Your task to perform on an android device: Go to Maps Image 0: 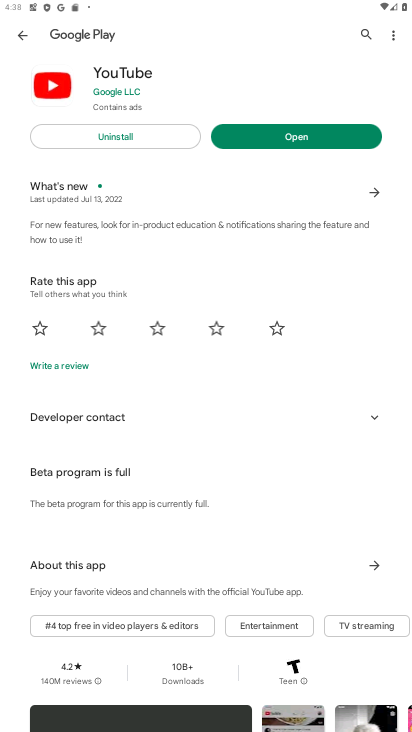
Step 0: press home button
Your task to perform on an android device: Go to Maps Image 1: 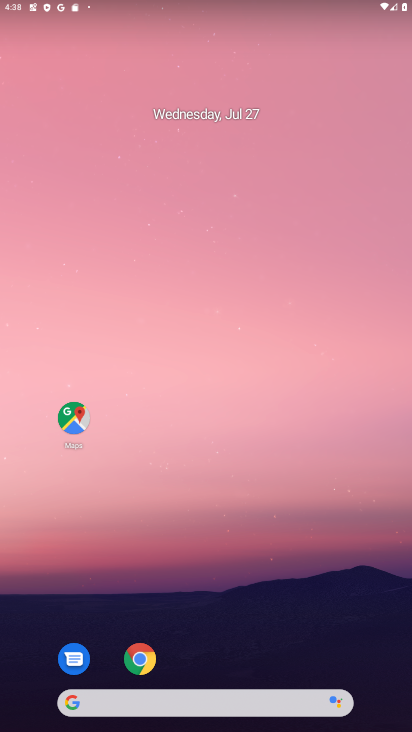
Step 1: click (77, 424)
Your task to perform on an android device: Go to Maps Image 2: 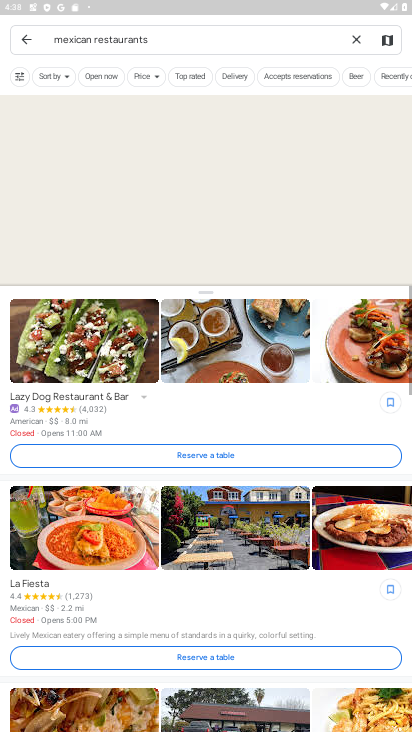
Step 2: task complete